Your task to perform on an android device: Go to ESPN.com Image 0: 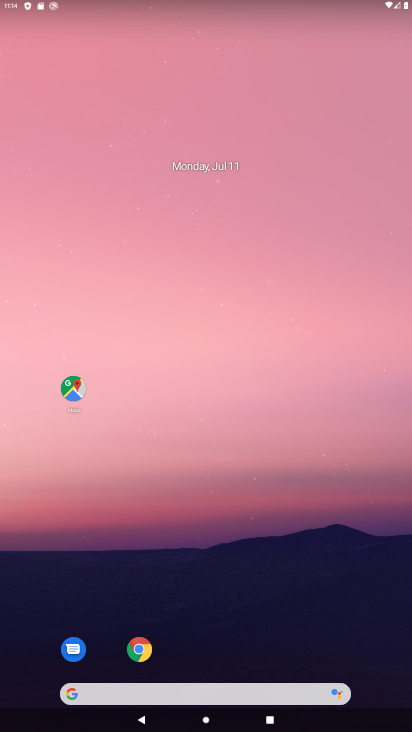
Step 0: click (137, 645)
Your task to perform on an android device: Go to ESPN.com Image 1: 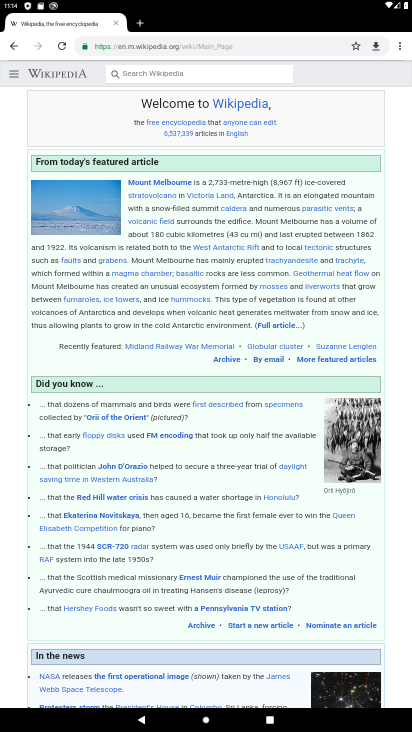
Step 1: click (398, 44)
Your task to perform on an android device: Go to ESPN.com Image 2: 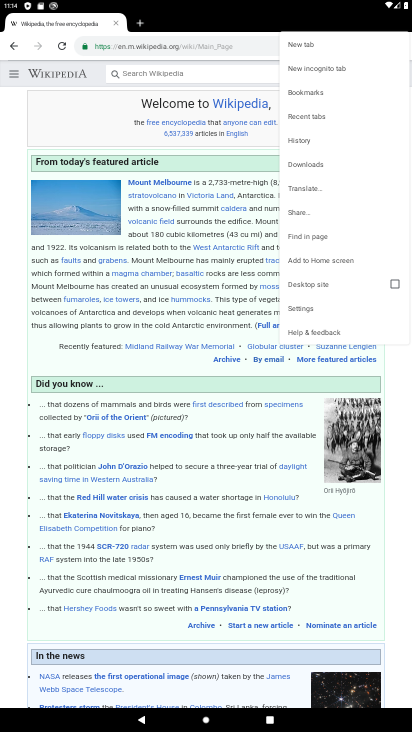
Step 2: click (297, 45)
Your task to perform on an android device: Go to ESPN.com Image 3: 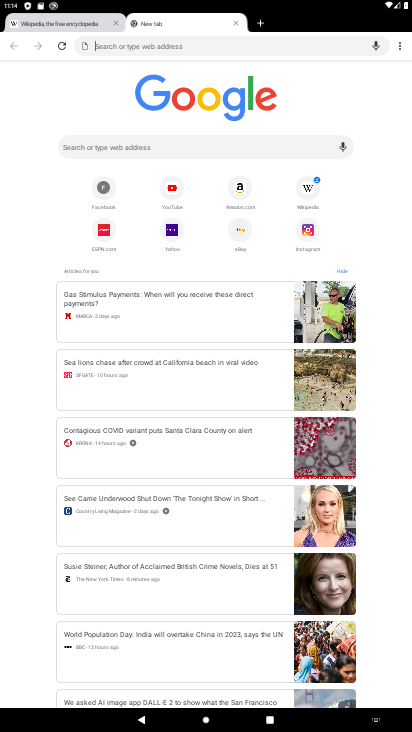
Step 3: click (121, 220)
Your task to perform on an android device: Go to ESPN.com Image 4: 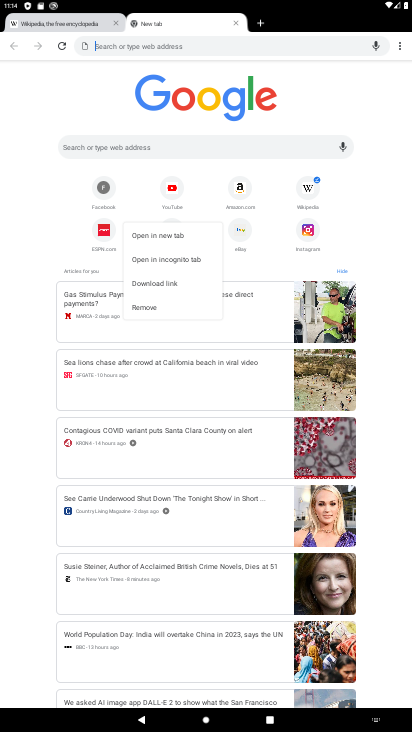
Step 4: click (100, 234)
Your task to perform on an android device: Go to ESPN.com Image 5: 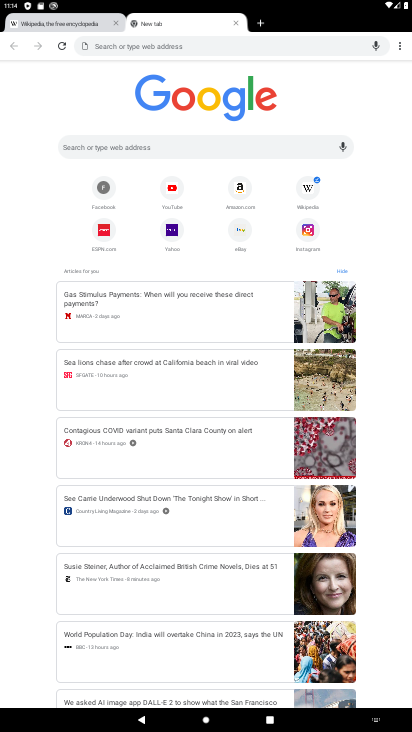
Step 5: click (98, 231)
Your task to perform on an android device: Go to ESPN.com Image 6: 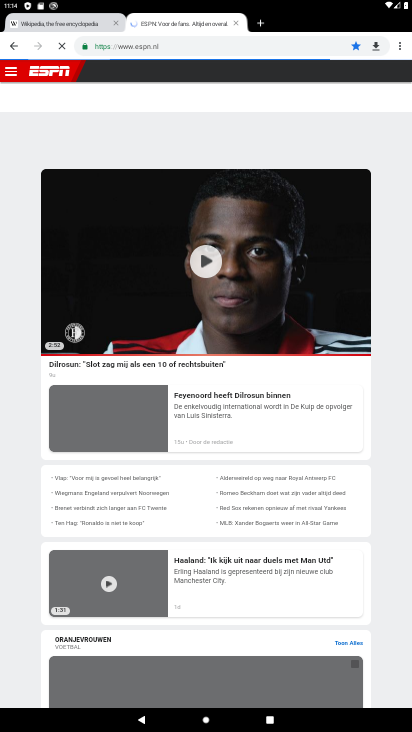
Step 6: task complete